Your task to perform on an android device: Open Reddit.com Image 0: 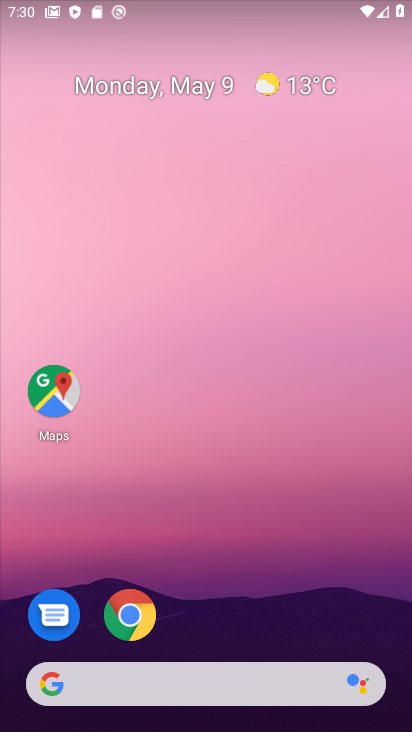
Step 0: click (169, 682)
Your task to perform on an android device: Open Reddit.com Image 1: 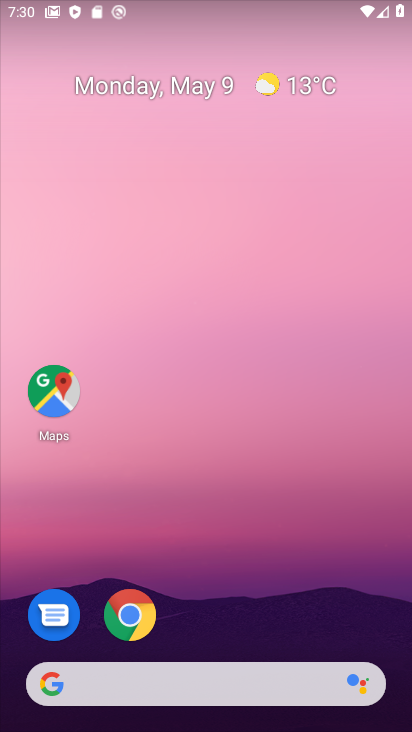
Step 1: click (265, 699)
Your task to perform on an android device: Open Reddit.com Image 2: 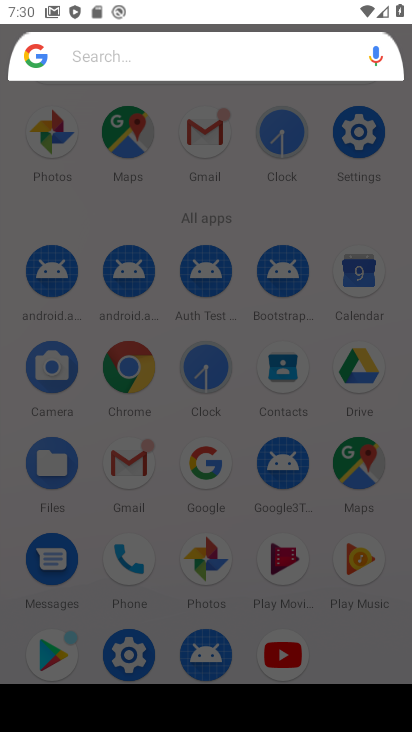
Step 2: type "reddit.com"
Your task to perform on an android device: Open Reddit.com Image 3: 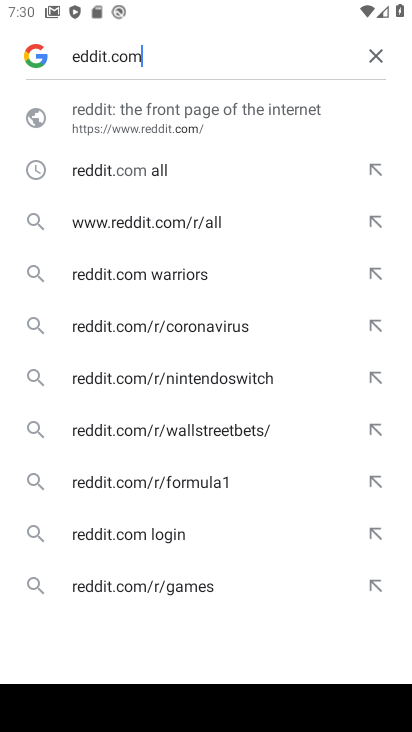
Step 3: click (175, 104)
Your task to perform on an android device: Open Reddit.com Image 4: 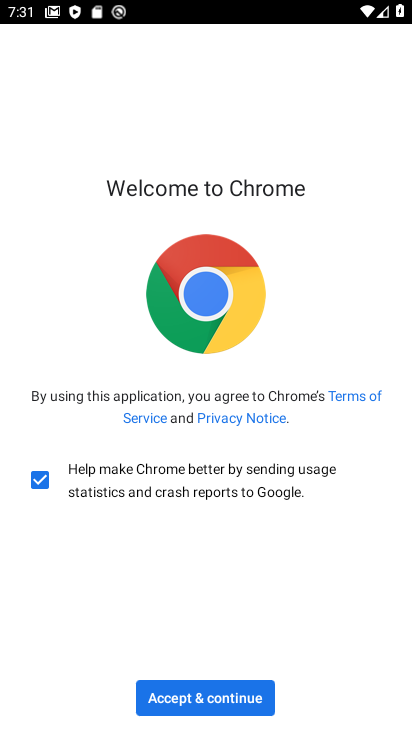
Step 4: click (254, 701)
Your task to perform on an android device: Open Reddit.com Image 5: 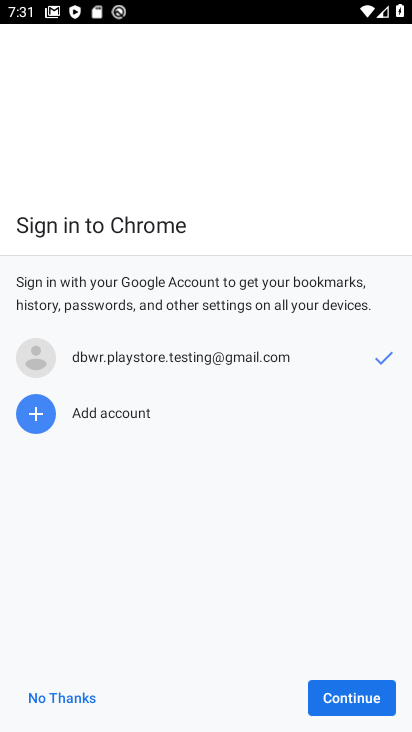
Step 5: click (356, 683)
Your task to perform on an android device: Open Reddit.com Image 6: 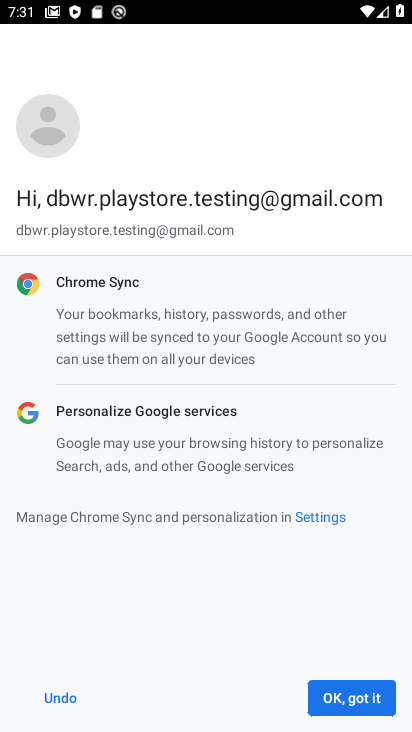
Step 6: click (356, 683)
Your task to perform on an android device: Open Reddit.com Image 7: 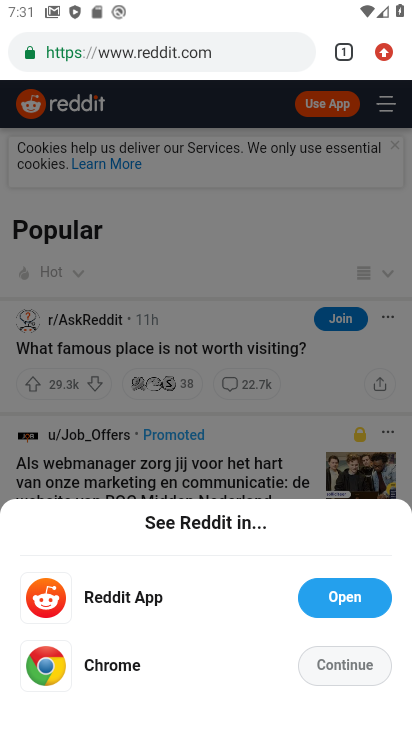
Step 7: task complete